Your task to perform on an android device: Open the phone app and click the voicemail tab. Image 0: 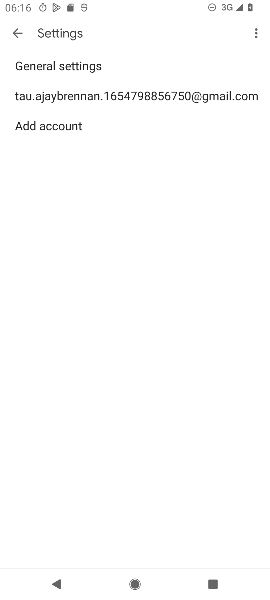
Step 0: press home button
Your task to perform on an android device: Open the phone app and click the voicemail tab. Image 1: 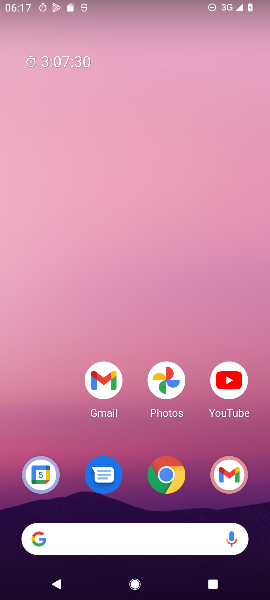
Step 1: drag from (66, 426) to (72, 159)
Your task to perform on an android device: Open the phone app and click the voicemail tab. Image 2: 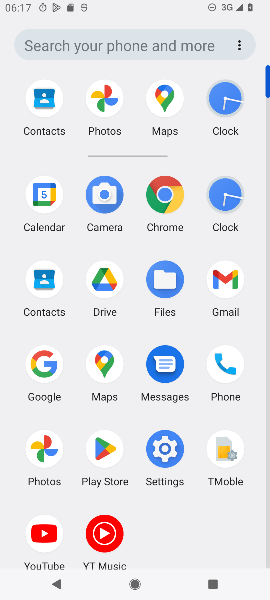
Step 2: click (232, 374)
Your task to perform on an android device: Open the phone app and click the voicemail tab. Image 3: 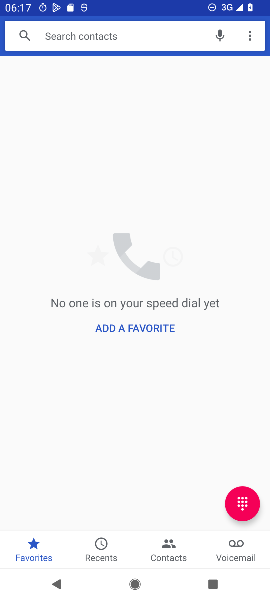
Step 3: click (234, 545)
Your task to perform on an android device: Open the phone app and click the voicemail tab. Image 4: 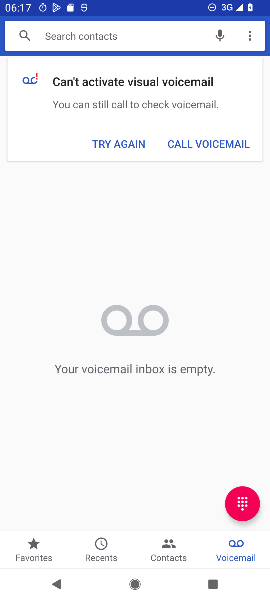
Step 4: task complete